Your task to perform on an android device: Open the web browser Image 0: 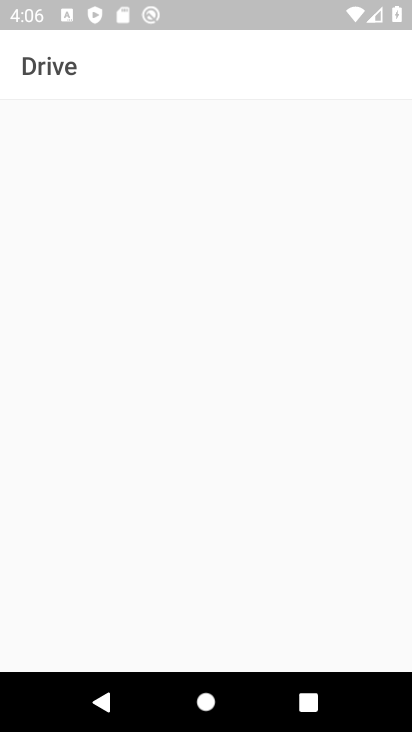
Step 0: press home button
Your task to perform on an android device: Open the web browser Image 1: 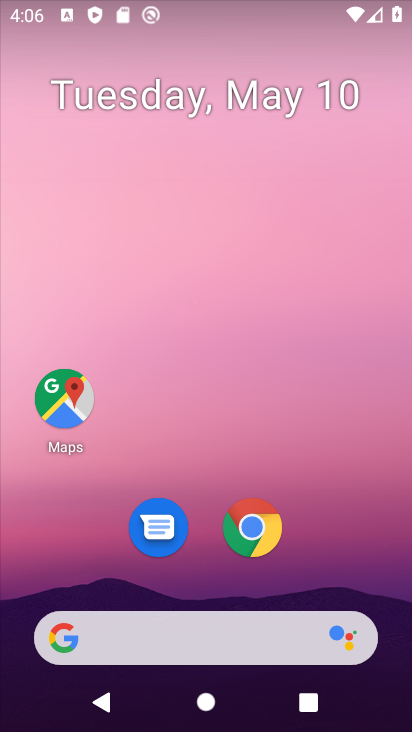
Step 1: click (252, 528)
Your task to perform on an android device: Open the web browser Image 2: 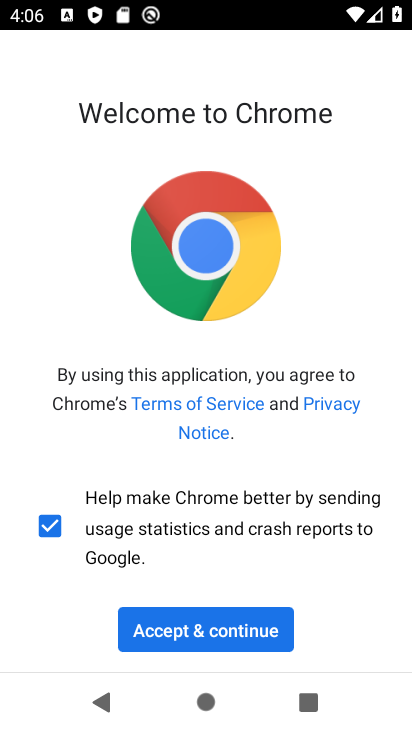
Step 2: click (238, 627)
Your task to perform on an android device: Open the web browser Image 3: 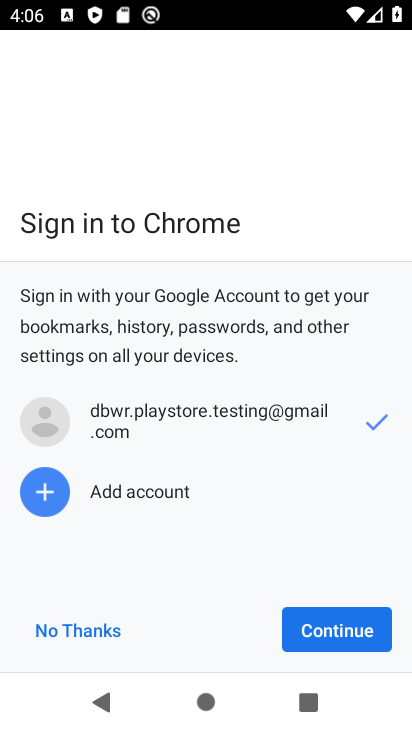
Step 3: click (299, 626)
Your task to perform on an android device: Open the web browser Image 4: 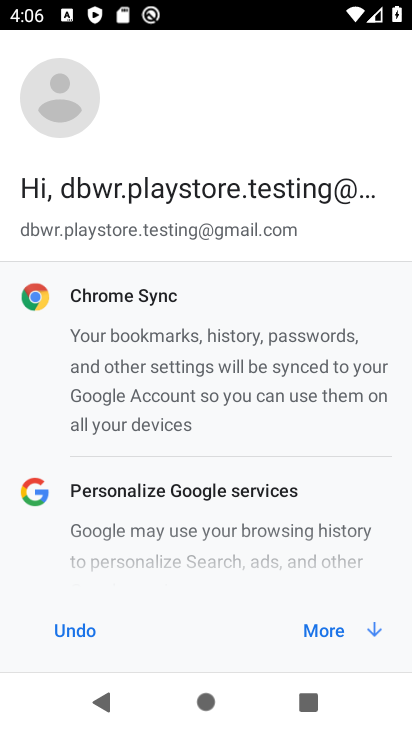
Step 4: click (363, 617)
Your task to perform on an android device: Open the web browser Image 5: 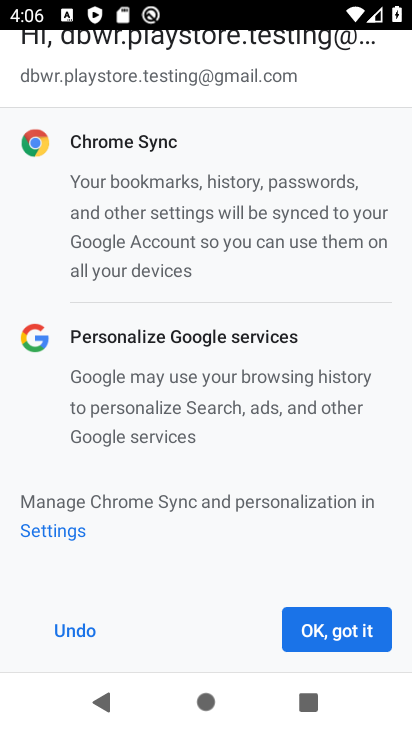
Step 5: click (363, 617)
Your task to perform on an android device: Open the web browser Image 6: 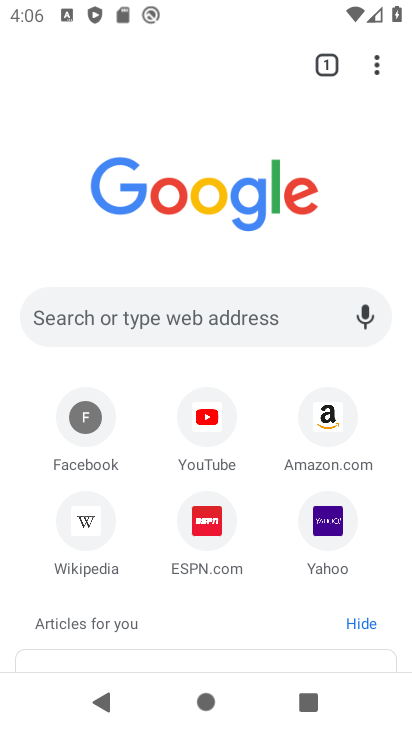
Step 6: click (184, 311)
Your task to perform on an android device: Open the web browser Image 7: 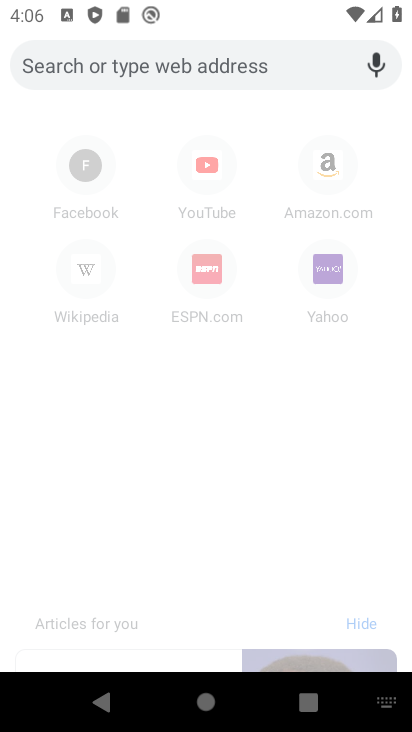
Step 7: task complete